Your task to perform on an android device: turn off javascript in the chrome app Image 0: 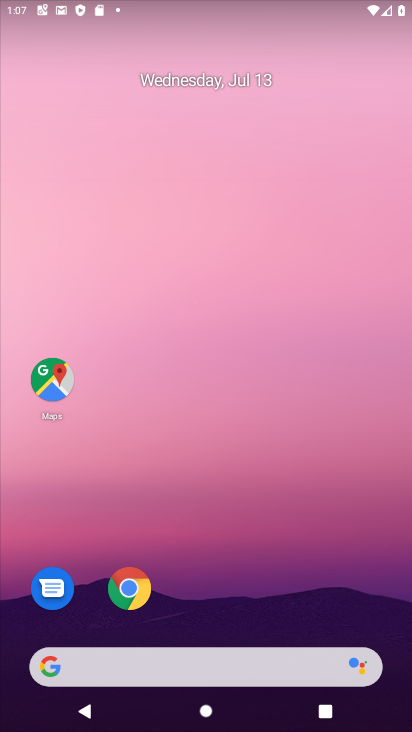
Step 0: press home button
Your task to perform on an android device: turn off javascript in the chrome app Image 1: 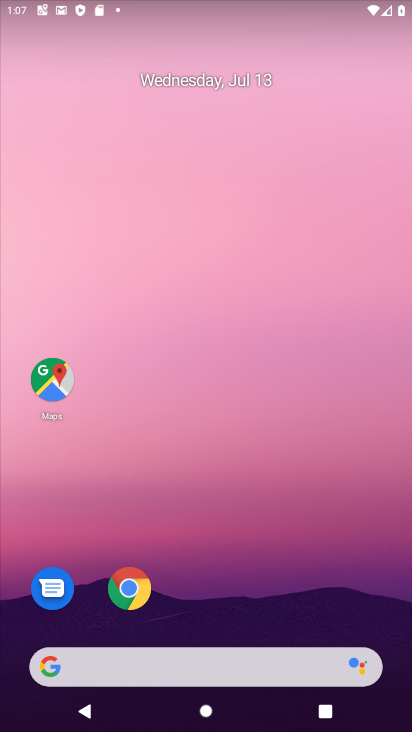
Step 1: click (140, 606)
Your task to perform on an android device: turn off javascript in the chrome app Image 2: 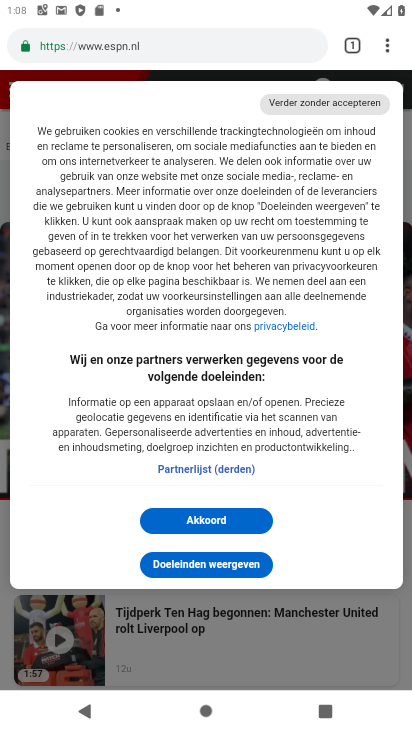
Step 2: drag from (392, 46) to (245, 596)
Your task to perform on an android device: turn off javascript in the chrome app Image 3: 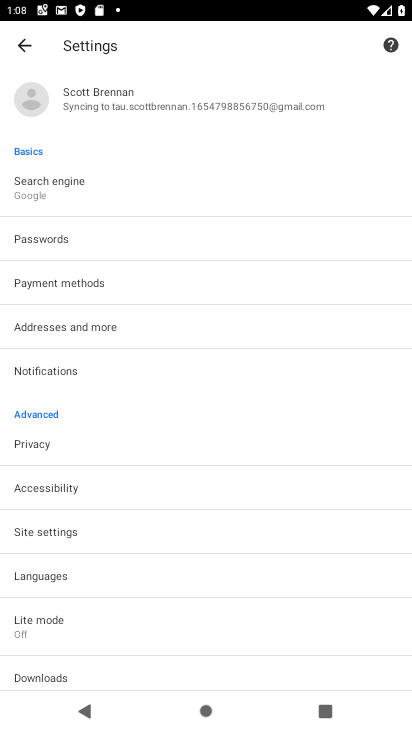
Step 3: click (37, 538)
Your task to perform on an android device: turn off javascript in the chrome app Image 4: 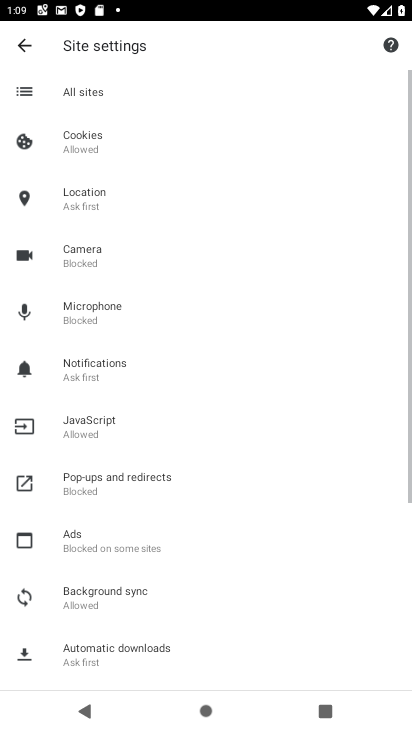
Step 4: click (85, 429)
Your task to perform on an android device: turn off javascript in the chrome app Image 5: 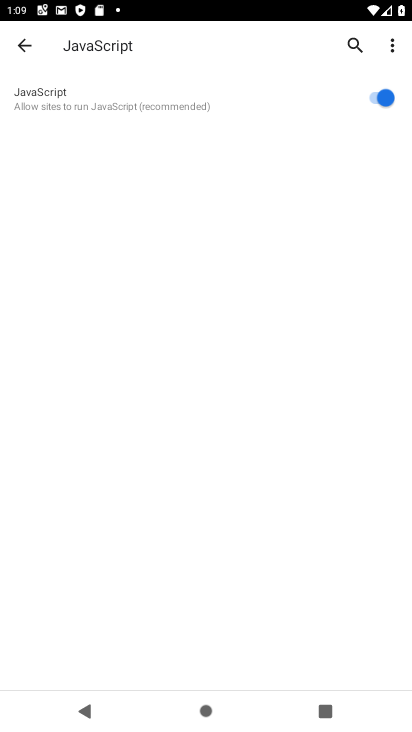
Step 5: click (146, 113)
Your task to perform on an android device: turn off javascript in the chrome app Image 6: 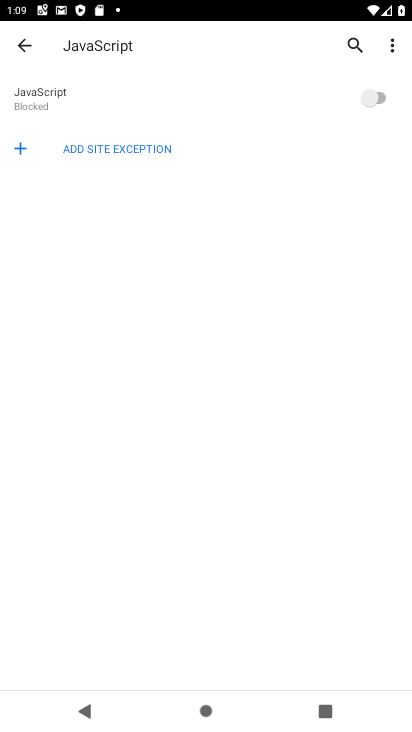
Step 6: task complete